Your task to perform on an android device: toggle javascript in the chrome app Image 0: 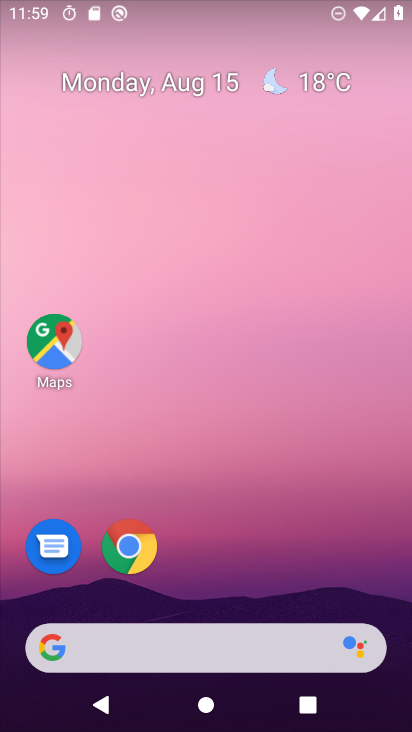
Step 0: click (121, 547)
Your task to perform on an android device: toggle javascript in the chrome app Image 1: 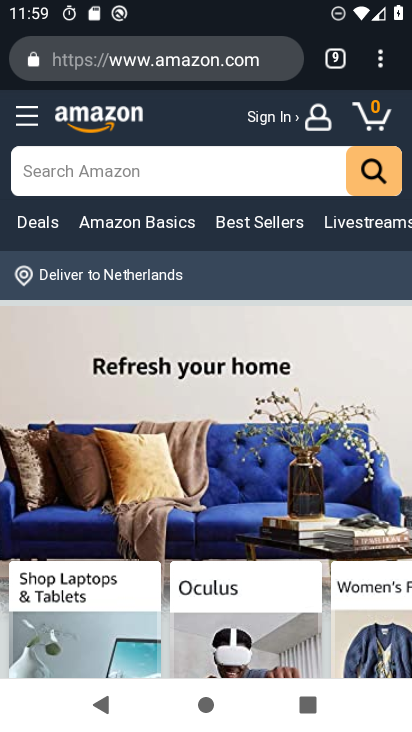
Step 1: click (381, 69)
Your task to perform on an android device: toggle javascript in the chrome app Image 2: 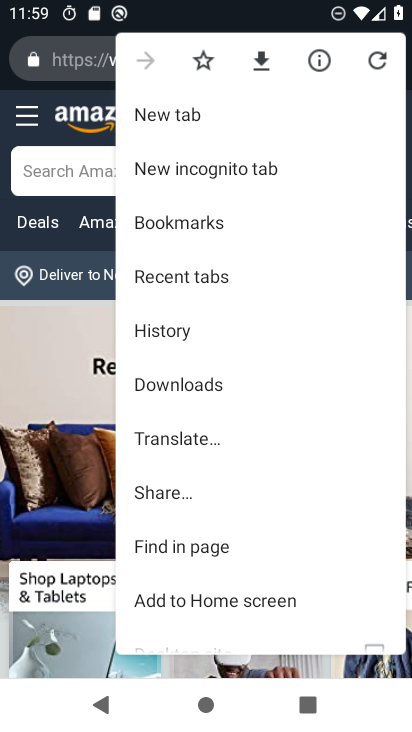
Step 2: drag from (184, 564) to (147, 257)
Your task to perform on an android device: toggle javascript in the chrome app Image 3: 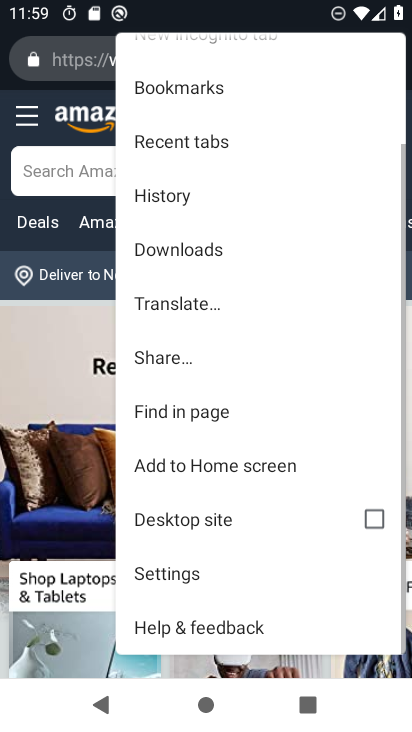
Step 3: click (179, 570)
Your task to perform on an android device: toggle javascript in the chrome app Image 4: 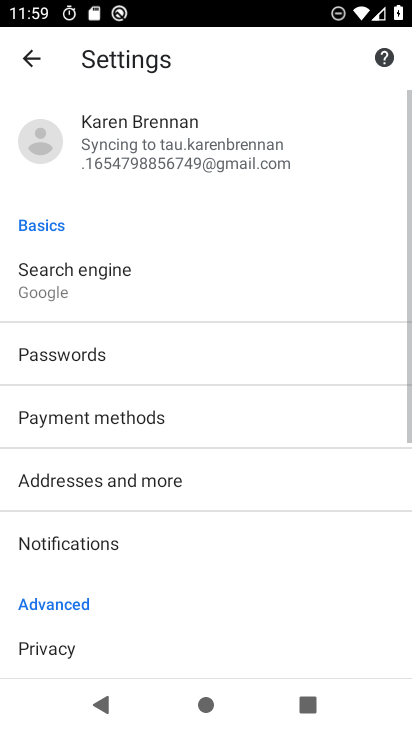
Step 4: drag from (102, 590) to (108, 237)
Your task to perform on an android device: toggle javascript in the chrome app Image 5: 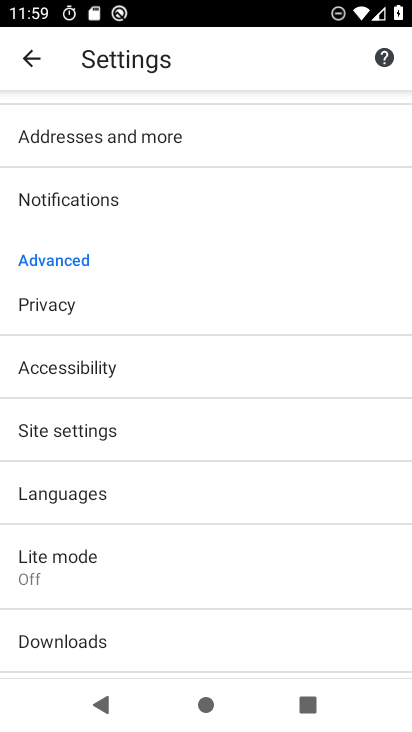
Step 5: click (79, 427)
Your task to perform on an android device: toggle javascript in the chrome app Image 6: 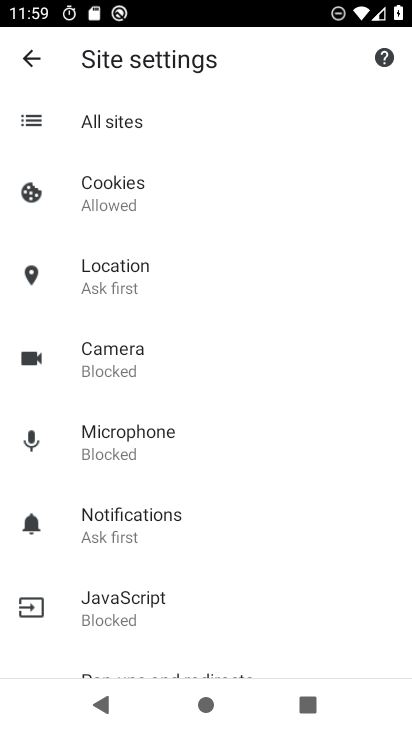
Step 6: click (114, 597)
Your task to perform on an android device: toggle javascript in the chrome app Image 7: 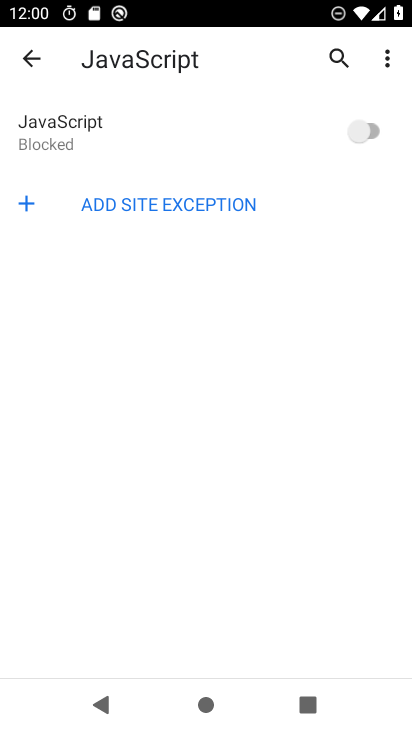
Step 7: click (371, 126)
Your task to perform on an android device: toggle javascript in the chrome app Image 8: 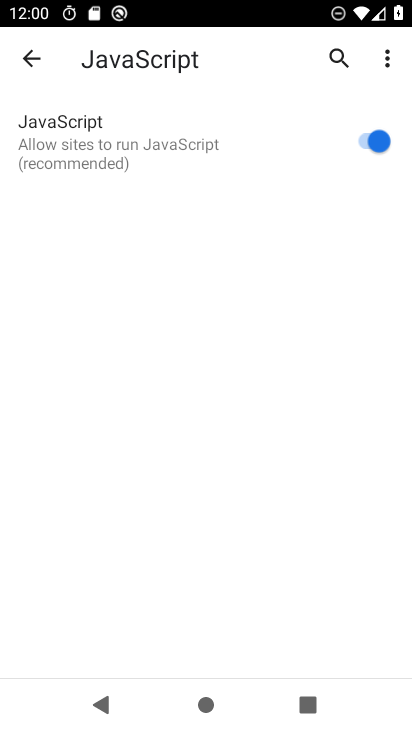
Step 8: task complete